Your task to perform on an android device: delete location history Image 0: 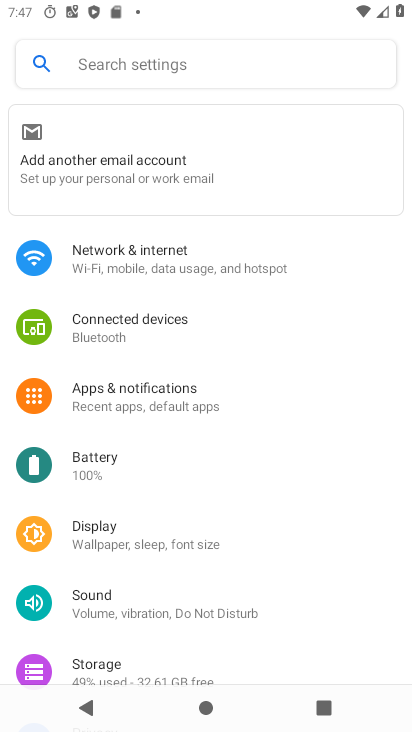
Step 0: press home button
Your task to perform on an android device: delete location history Image 1: 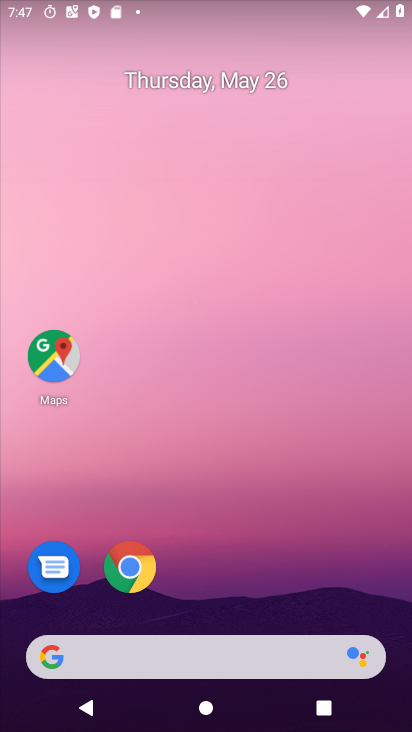
Step 1: click (62, 346)
Your task to perform on an android device: delete location history Image 2: 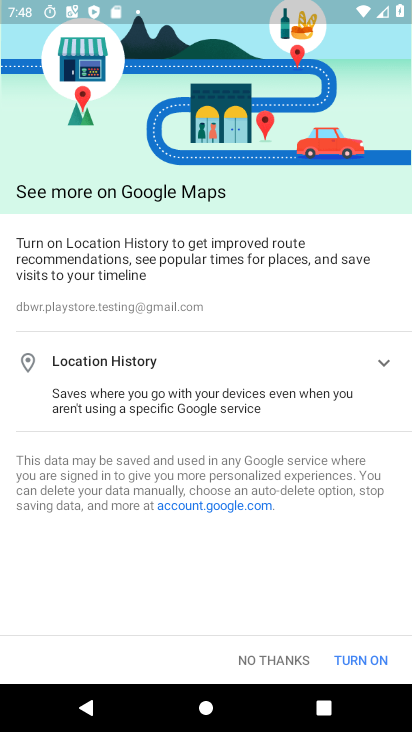
Step 2: click (266, 655)
Your task to perform on an android device: delete location history Image 3: 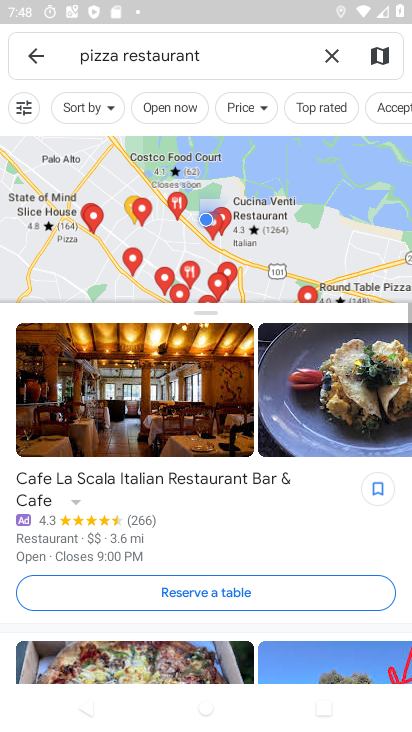
Step 3: click (30, 53)
Your task to perform on an android device: delete location history Image 4: 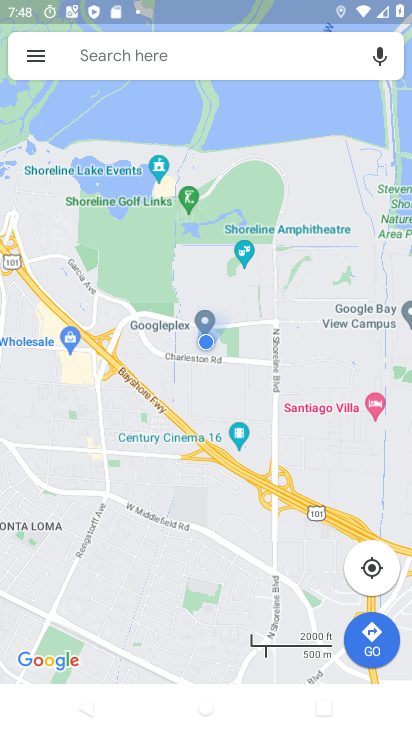
Step 4: click (35, 57)
Your task to perform on an android device: delete location history Image 5: 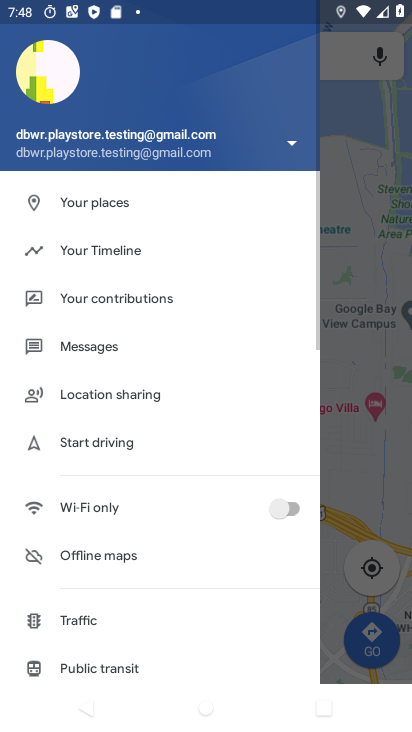
Step 5: click (120, 252)
Your task to perform on an android device: delete location history Image 6: 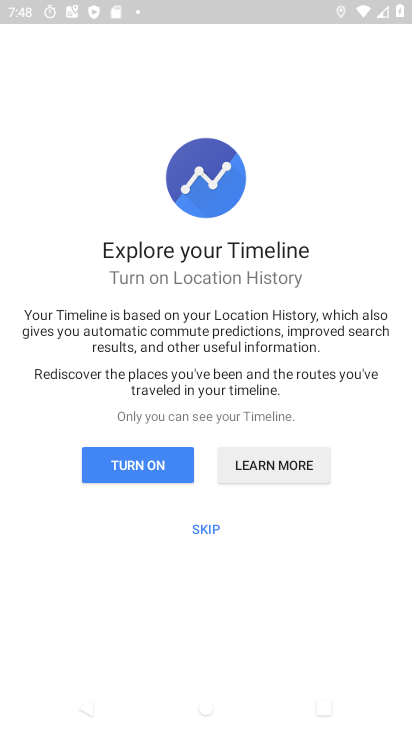
Step 6: click (216, 529)
Your task to perform on an android device: delete location history Image 7: 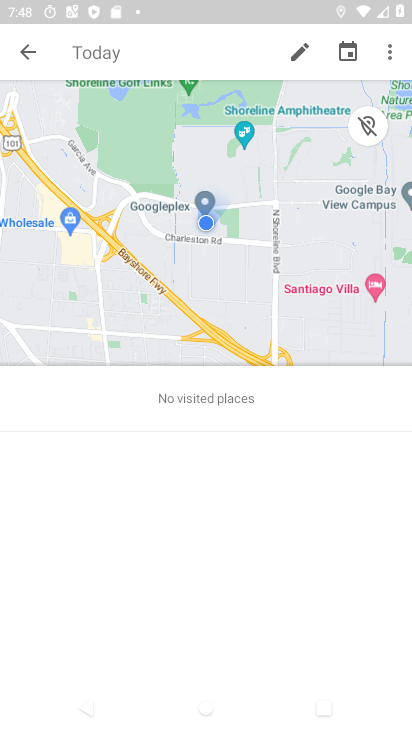
Step 7: click (390, 51)
Your task to perform on an android device: delete location history Image 8: 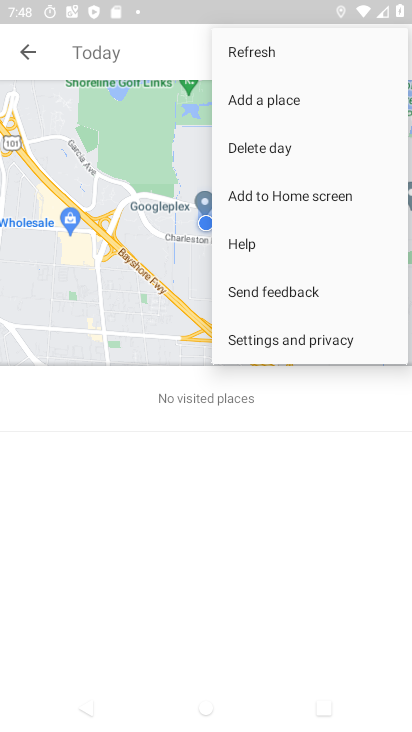
Step 8: click (266, 347)
Your task to perform on an android device: delete location history Image 9: 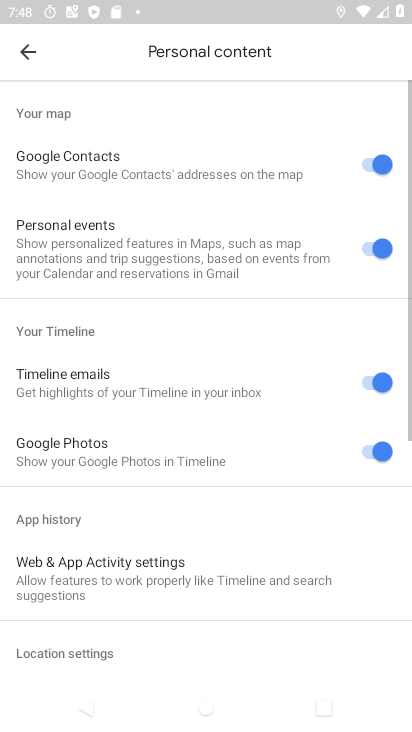
Step 9: drag from (185, 633) to (358, 52)
Your task to perform on an android device: delete location history Image 10: 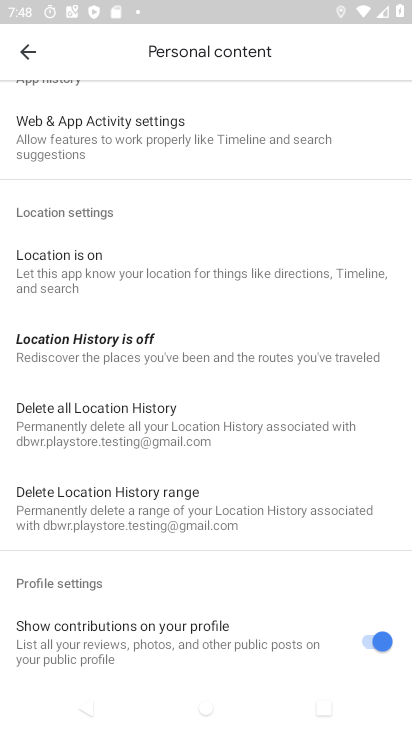
Step 10: click (119, 411)
Your task to perform on an android device: delete location history Image 11: 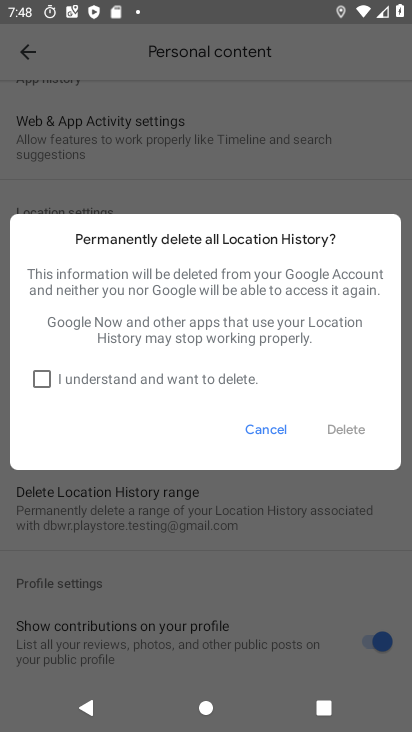
Step 11: click (40, 381)
Your task to perform on an android device: delete location history Image 12: 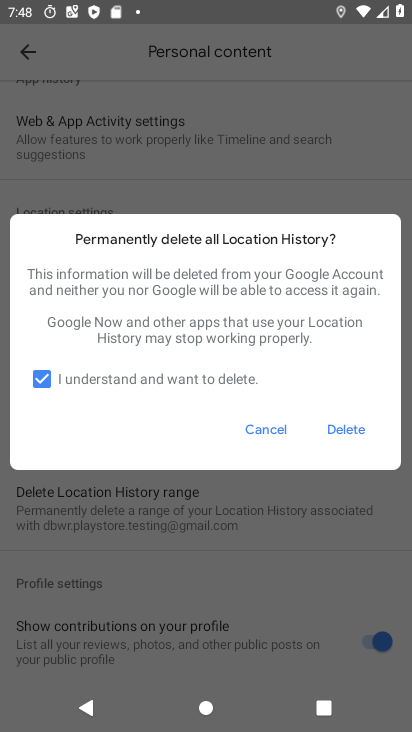
Step 12: click (356, 434)
Your task to perform on an android device: delete location history Image 13: 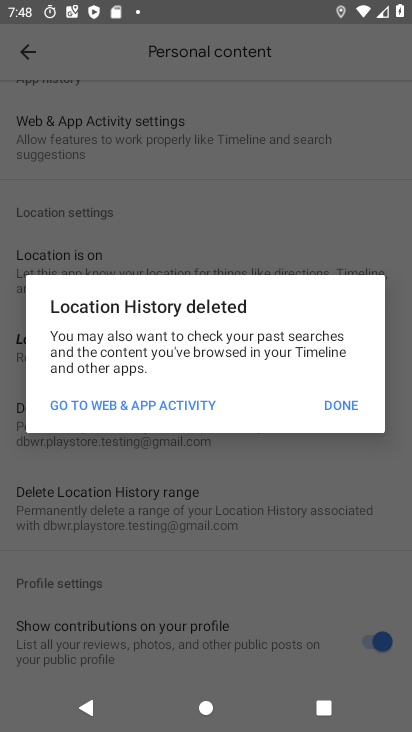
Step 13: click (344, 407)
Your task to perform on an android device: delete location history Image 14: 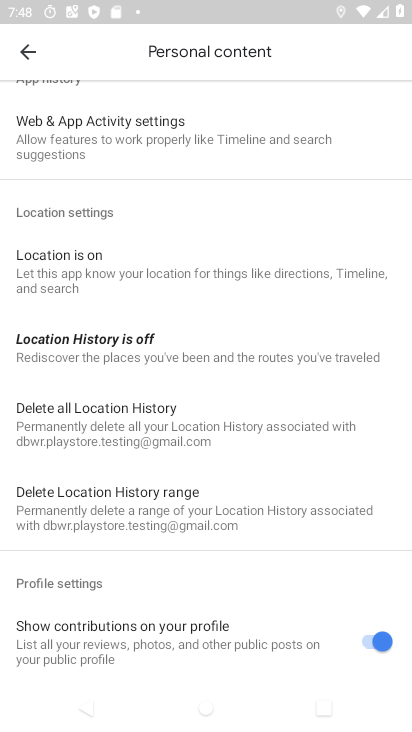
Step 14: task complete